Your task to perform on an android device: allow cookies in the chrome app Image 0: 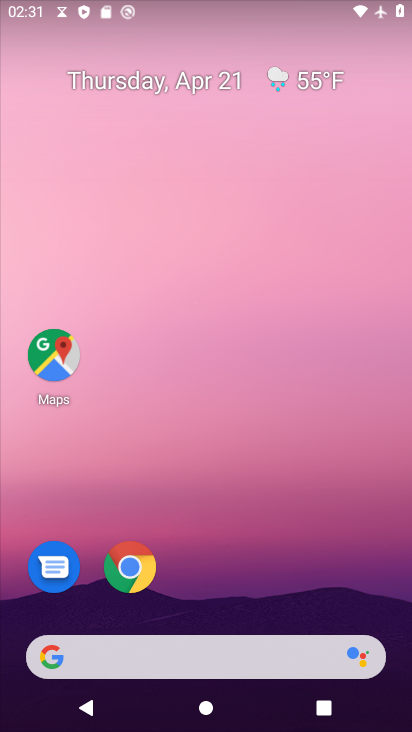
Step 0: click (291, 73)
Your task to perform on an android device: allow cookies in the chrome app Image 1: 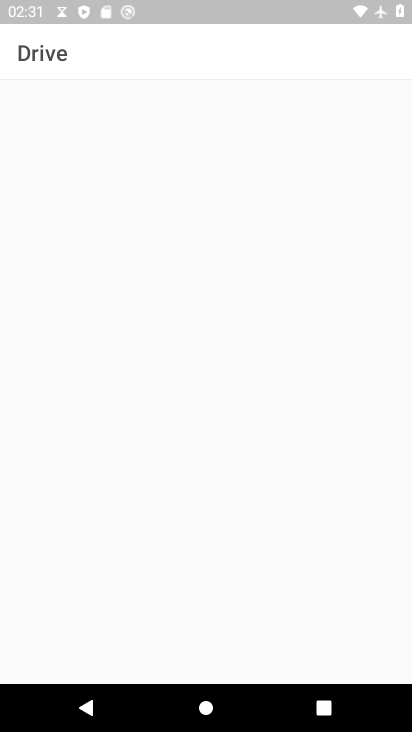
Step 1: press home button
Your task to perform on an android device: allow cookies in the chrome app Image 2: 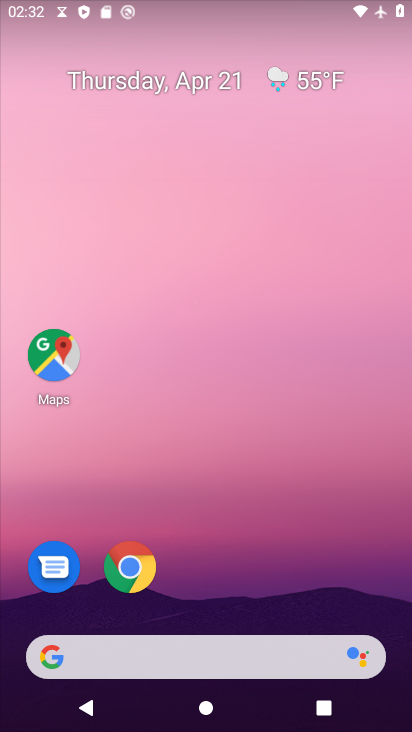
Step 2: click (128, 576)
Your task to perform on an android device: allow cookies in the chrome app Image 3: 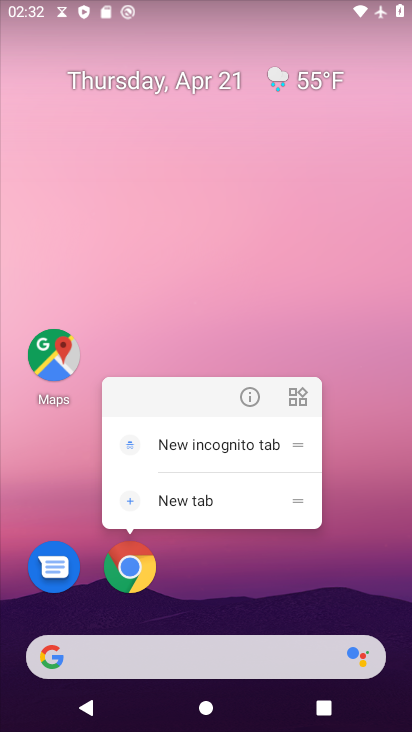
Step 3: click (135, 559)
Your task to perform on an android device: allow cookies in the chrome app Image 4: 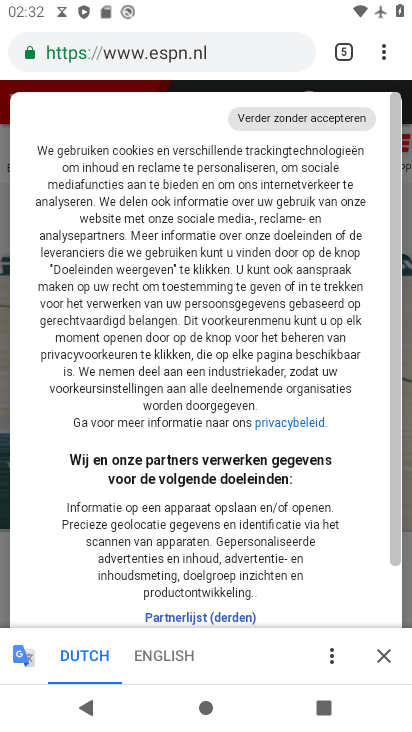
Step 4: click (374, 63)
Your task to perform on an android device: allow cookies in the chrome app Image 5: 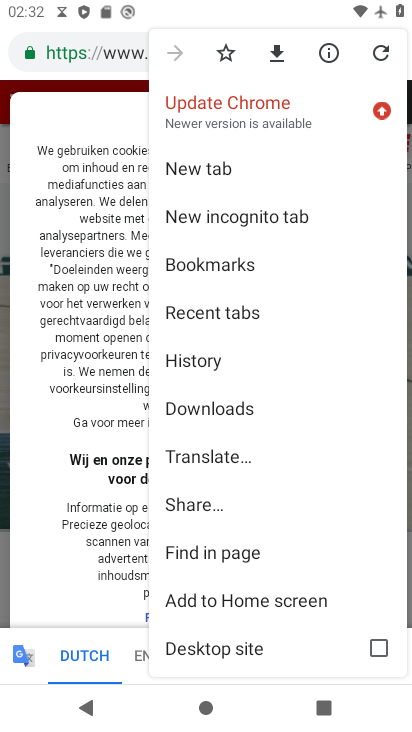
Step 5: drag from (289, 557) to (378, 112)
Your task to perform on an android device: allow cookies in the chrome app Image 6: 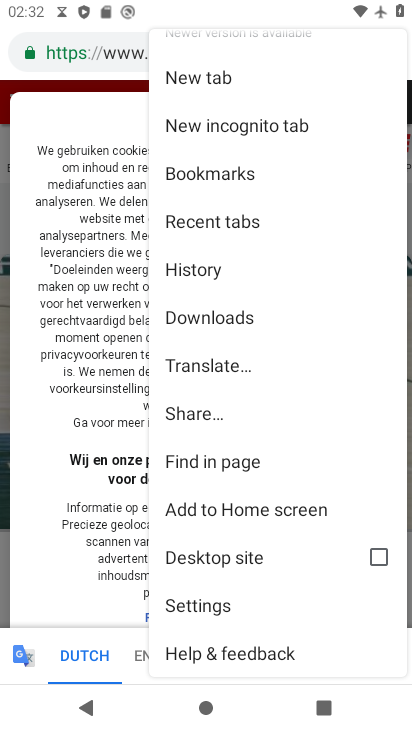
Step 6: click (205, 608)
Your task to perform on an android device: allow cookies in the chrome app Image 7: 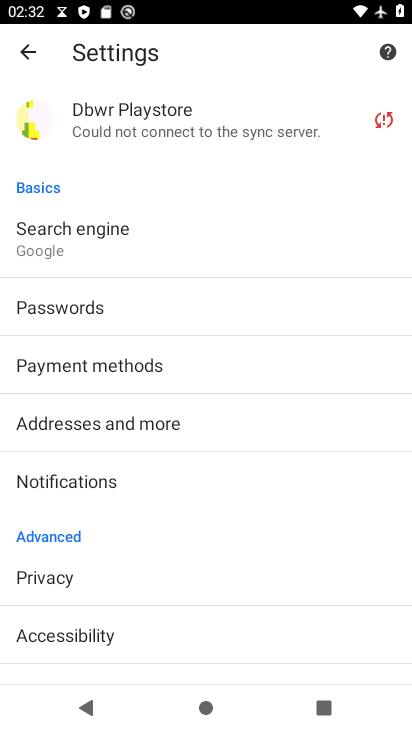
Step 7: drag from (135, 559) to (305, 152)
Your task to perform on an android device: allow cookies in the chrome app Image 8: 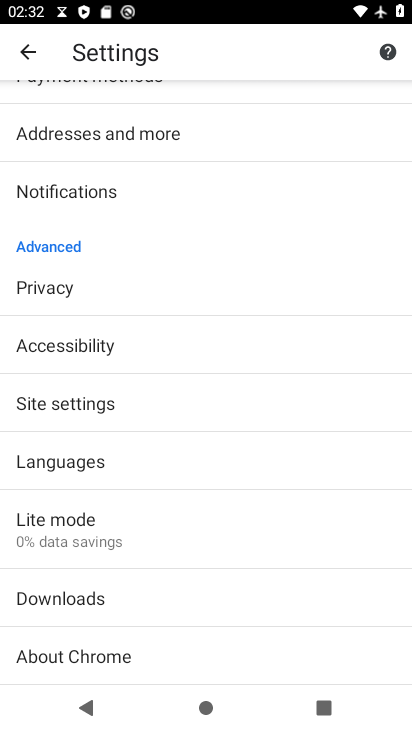
Step 8: click (82, 404)
Your task to perform on an android device: allow cookies in the chrome app Image 9: 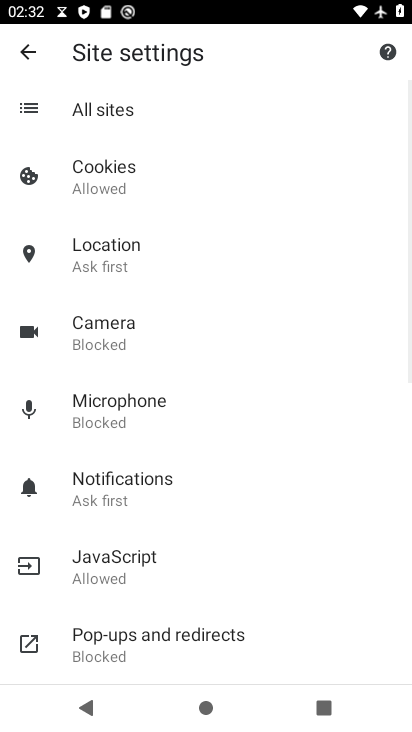
Step 9: click (111, 177)
Your task to perform on an android device: allow cookies in the chrome app Image 10: 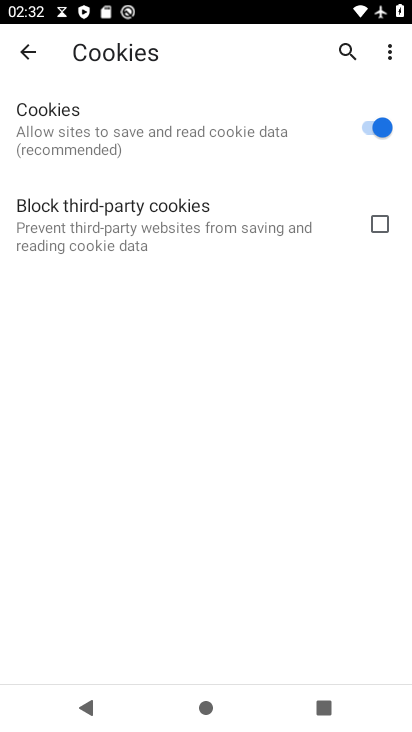
Step 10: task complete